Your task to perform on an android device: Go to Maps Image 0: 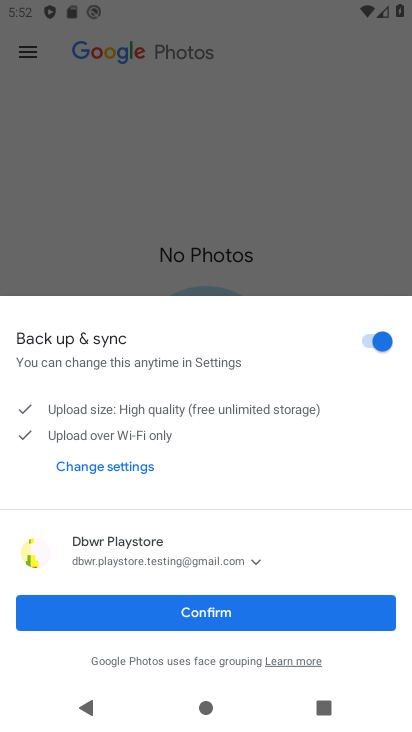
Step 0: click (223, 607)
Your task to perform on an android device: Go to Maps Image 1: 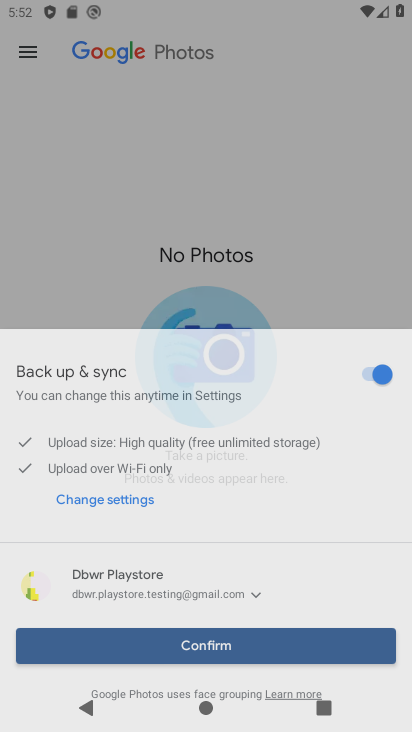
Step 1: click (196, 610)
Your task to perform on an android device: Go to Maps Image 2: 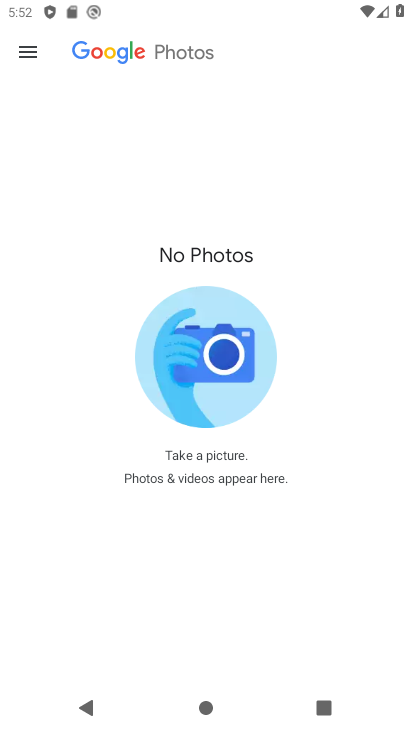
Step 2: click (196, 610)
Your task to perform on an android device: Go to Maps Image 3: 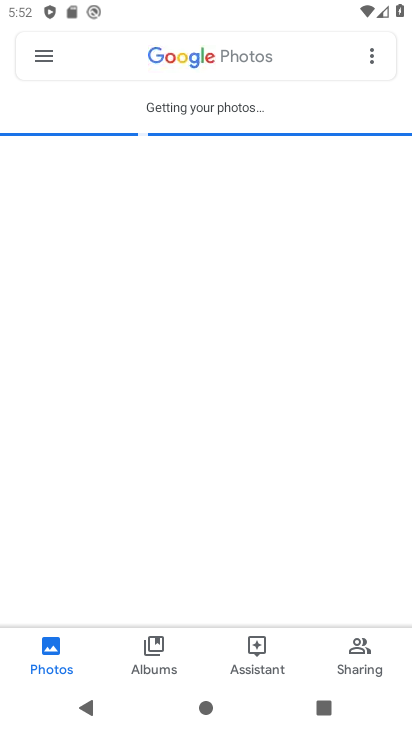
Step 3: press home button
Your task to perform on an android device: Go to Maps Image 4: 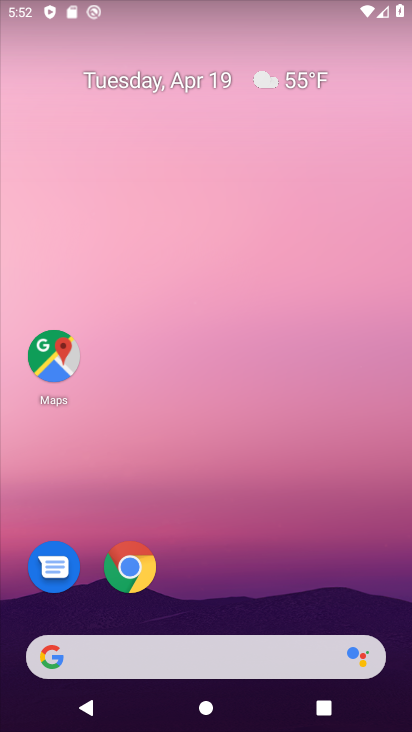
Step 4: click (64, 347)
Your task to perform on an android device: Go to Maps Image 5: 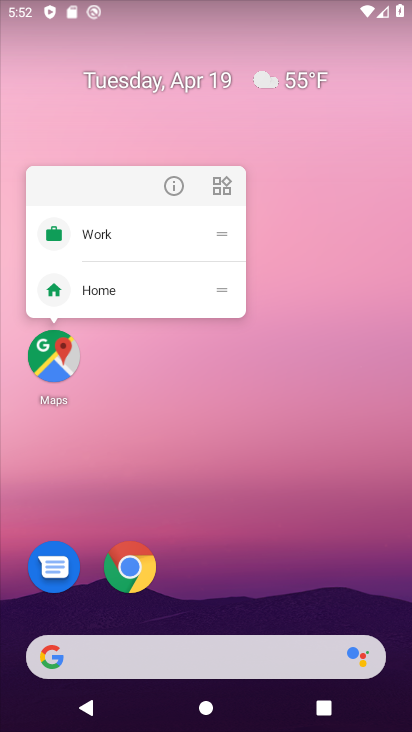
Step 5: click (56, 353)
Your task to perform on an android device: Go to Maps Image 6: 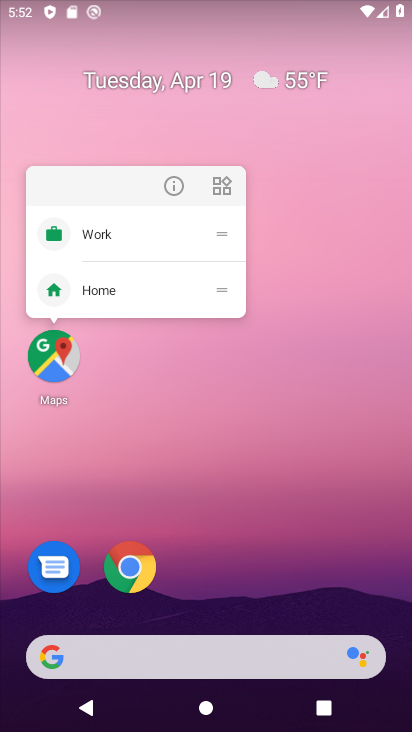
Step 6: click (56, 354)
Your task to perform on an android device: Go to Maps Image 7: 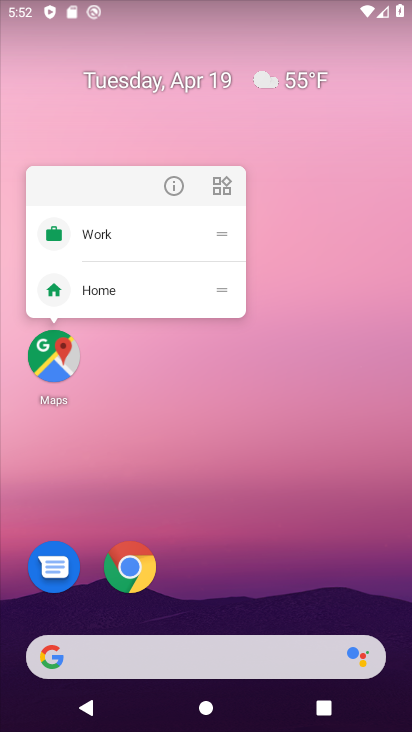
Step 7: click (62, 352)
Your task to perform on an android device: Go to Maps Image 8: 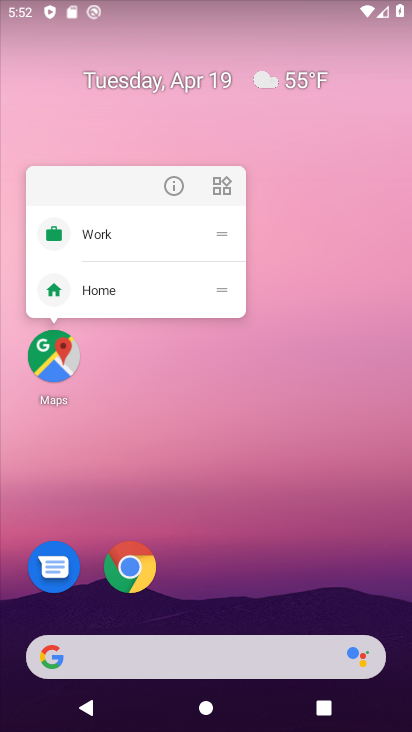
Step 8: click (61, 359)
Your task to perform on an android device: Go to Maps Image 9: 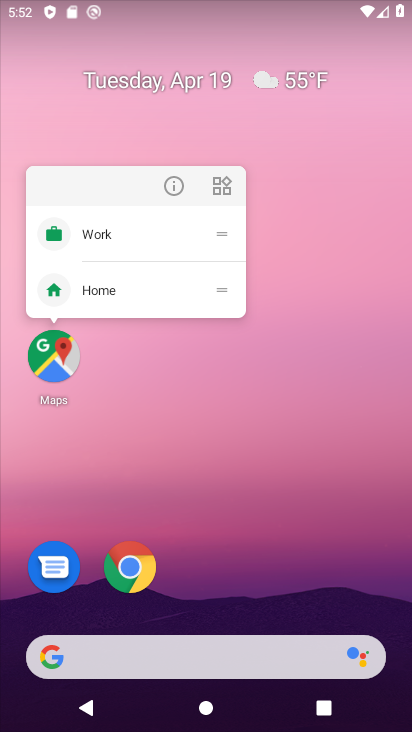
Step 9: click (53, 359)
Your task to perform on an android device: Go to Maps Image 10: 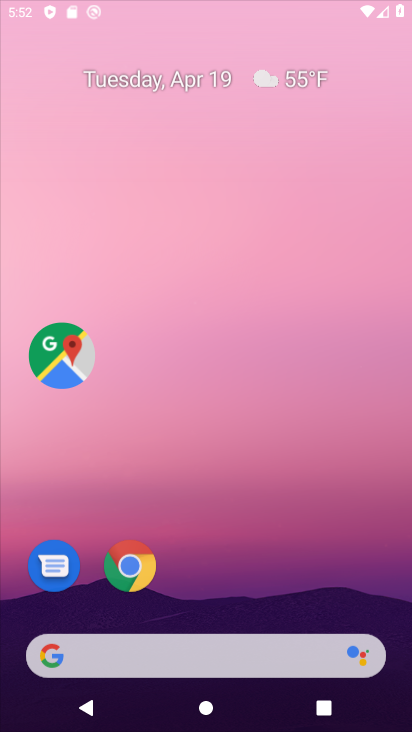
Step 10: click (53, 359)
Your task to perform on an android device: Go to Maps Image 11: 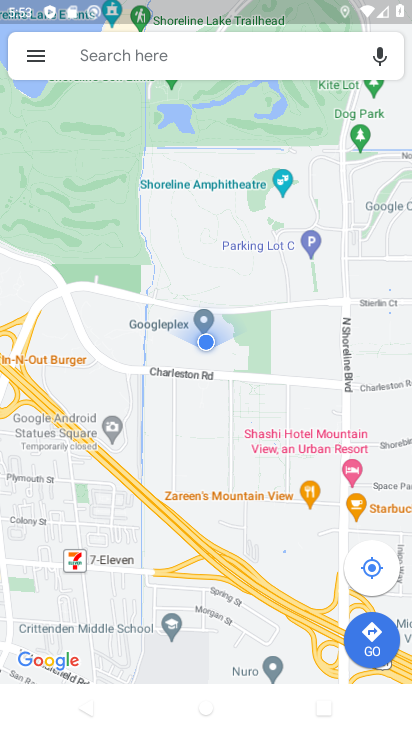
Step 11: task complete